Your task to perform on an android device: Open privacy settings Image 0: 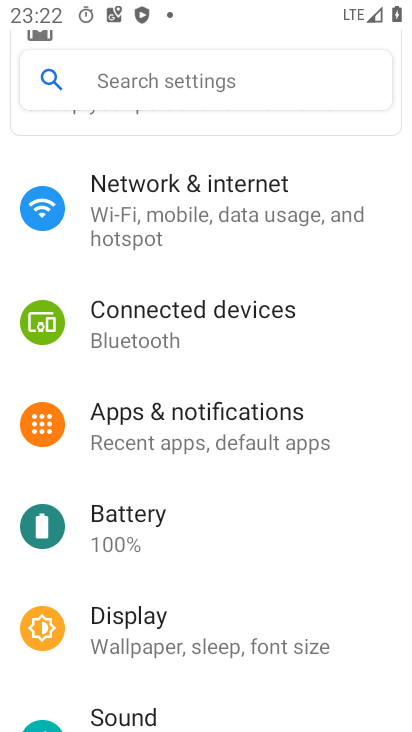
Step 0: drag from (254, 640) to (254, 293)
Your task to perform on an android device: Open privacy settings Image 1: 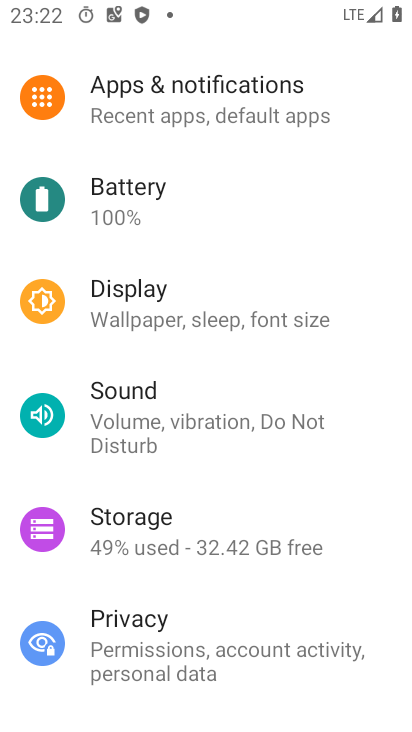
Step 1: click (129, 628)
Your task to perform on an android device: Open privacy settings Image 2: 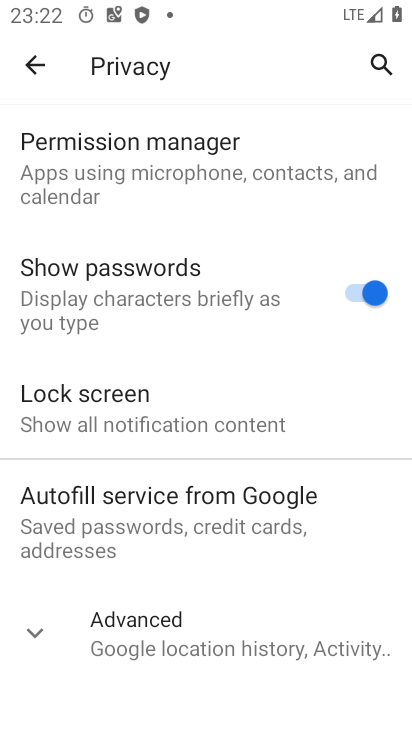
Step 2: task complete